Your task to perform on an android device: See recent photos Image 0: 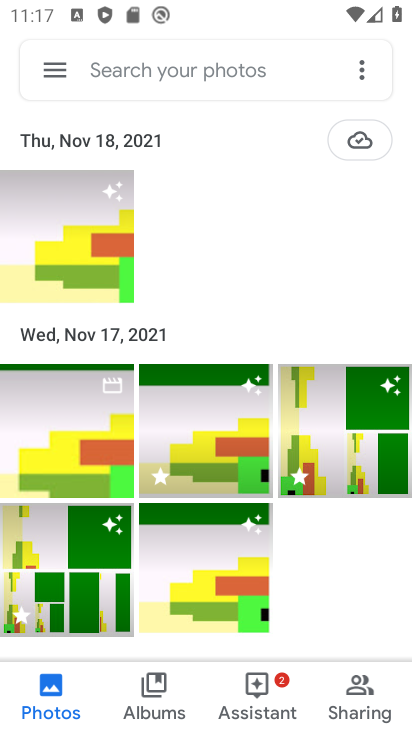
Step 0: task complete